Your task to perform on an android device: snooze an email in the gmail app Image 0: 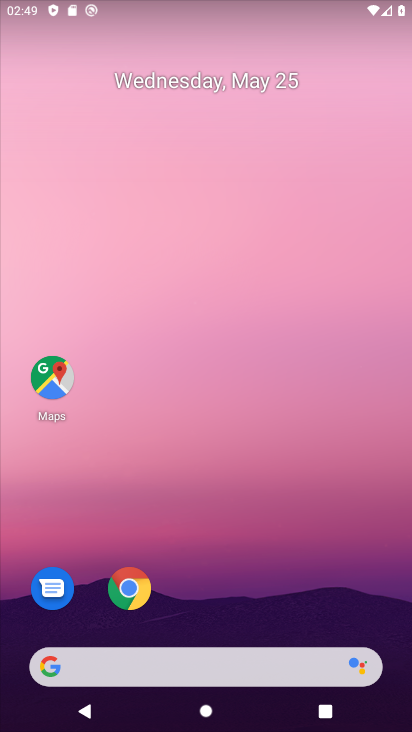
Step 0: press home button
Your task to perform on an android device: snooze an email in the gmail app Image 1: 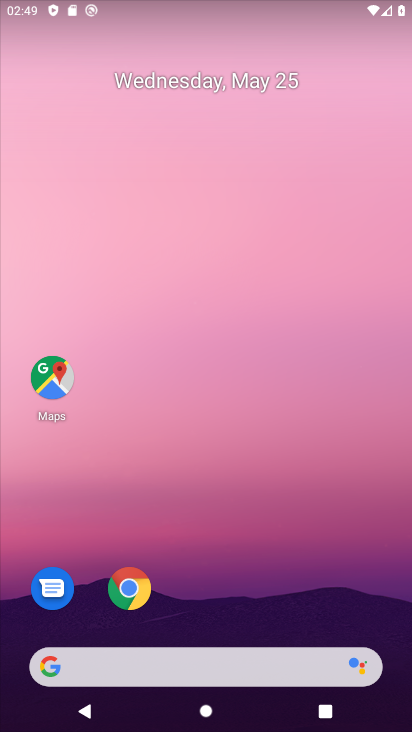
Step 1: press home button
Your task to perform on an android device: snooze an email in the gmail app Image 2: 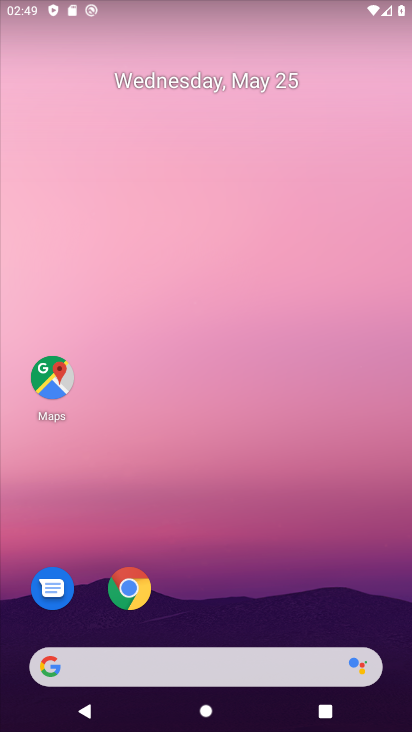
Step 2: drag from (388, 660) to (367, 533)
Your task to perform on an android device: snooze an email in the gmail app Image 3: 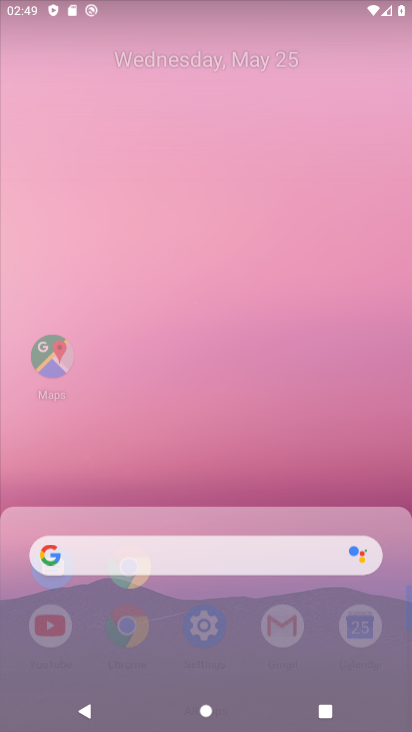
Step 3: click (367, 533)
Your task to perform on an android device: snooze an email in the gmail app Image 4: 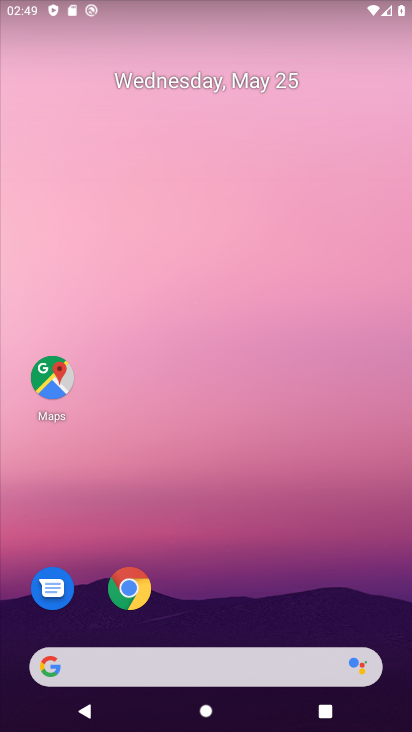
Step 4: drag from (368, 535) to (303, 178)
Your task to perform on an android device: snooze an email in the gmail app Image 5: 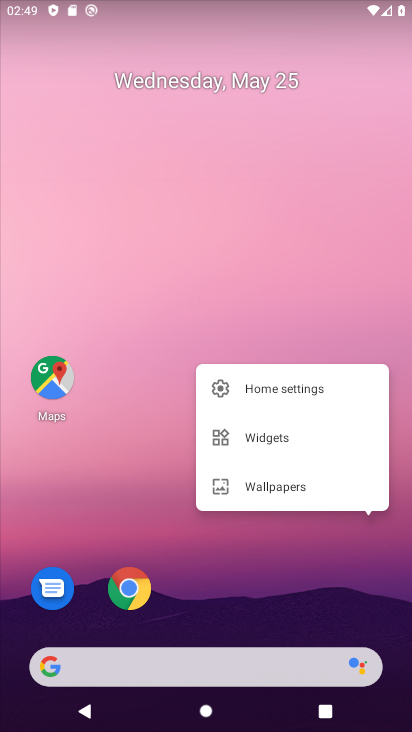
Step 5: click (270, 230)
Your task to perform on an android device: snooze an email in the gmail app Image 6: 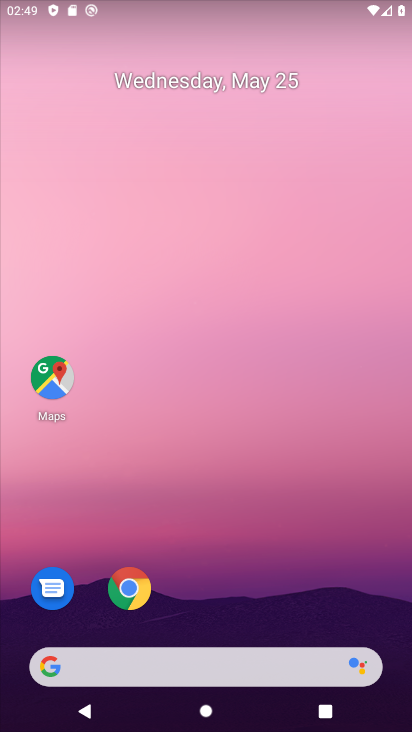
Step 6: drag from (361, 584) to (357, 138)
Your task to perform on an android device: snooze an email in the gmail app Image 7: 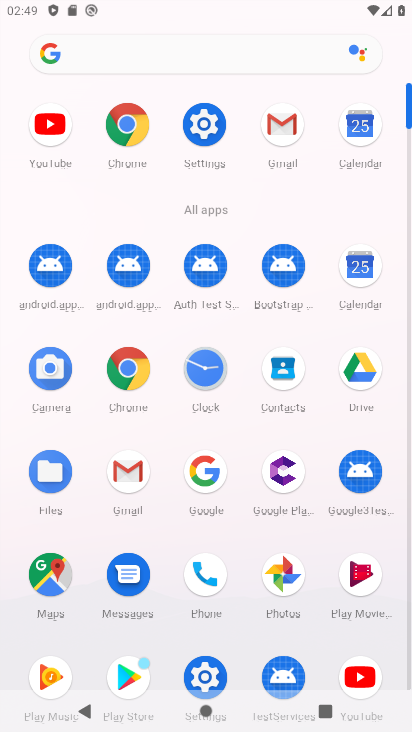
Step 7: click (128, 478)
Your task to perform on an android device: snooze an email in the gmail app Image 8: 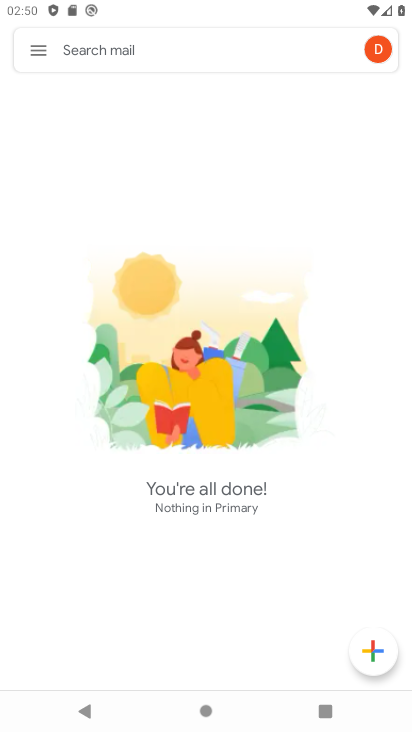
Step 8: click (38, 38)
Your task to perform on an android device: snooze an email in the gmail app Image 9: 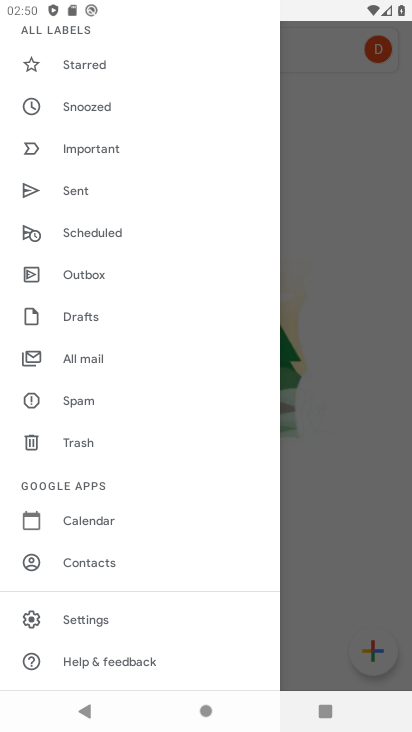
Step 9: task complete